Your task to perform on an android device: turn off picture-in-picture Image 0: 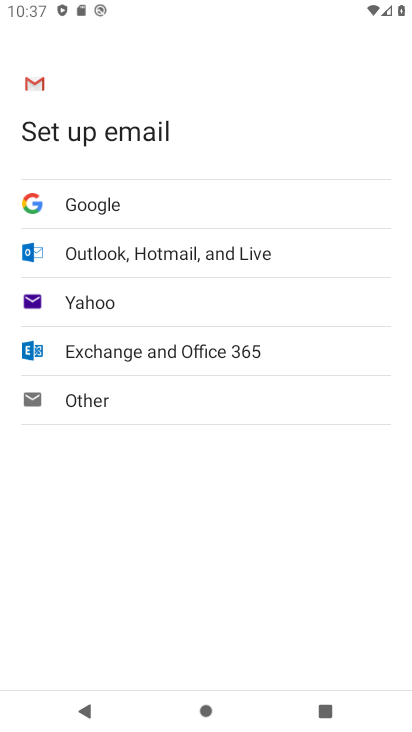
Step 0: press home button
Your task to perform on an android device: turn off picture-in-picture Image 1: 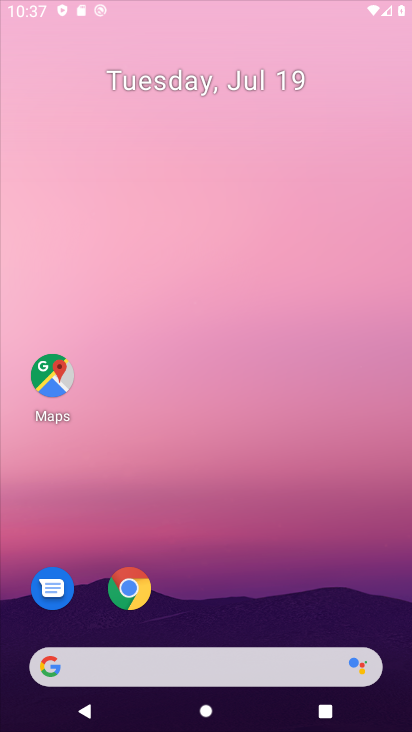
Step 1: drag from (380, 645) to (238, 6)
Your task to perform on an android device: turn off picture-in-picture Image 2: 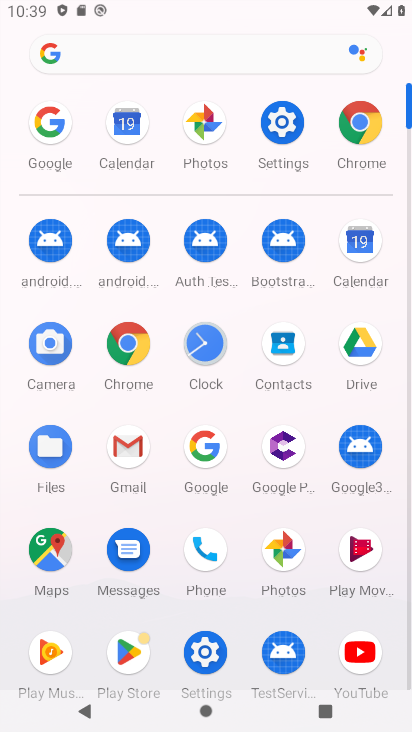
Step 2: click (137, 341)
Your task to perform on an android device: turn off picture-in-picture Image 3: 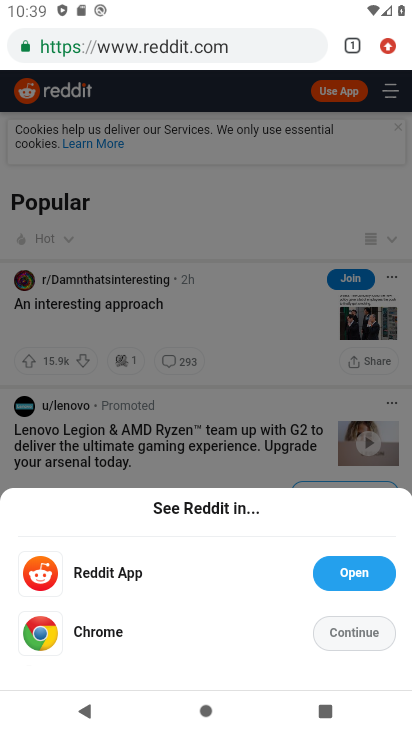
Step 3: press back button
Your task to perform on an android device: turn off picture-in-picture Image 4: 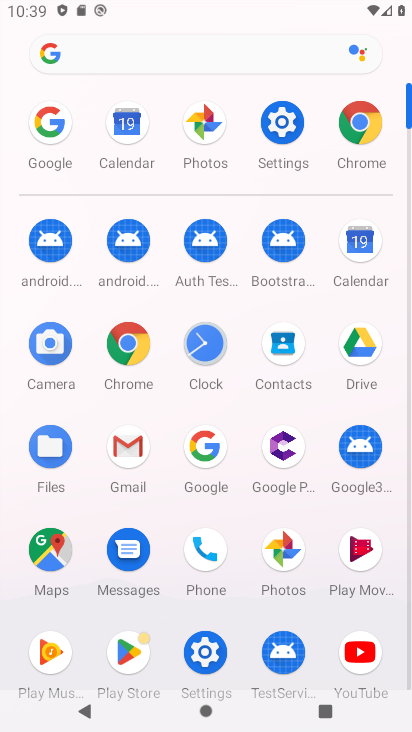
Step 4: click (356, 121)
Your task to perform on an android device: turn off picture-in-picture Image 5: 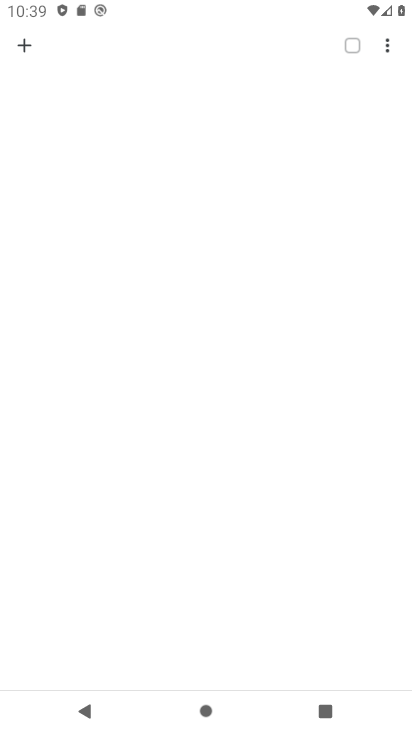
Step 5: task complete